Your task to perform on an android device: Open the map Image 0: 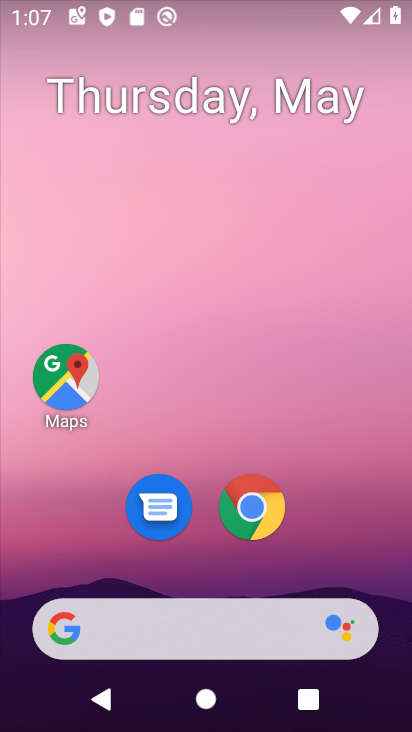
Step 0: drag from (194, 619) to (274, 0)
Your task to perform on an android device: Open the map Image 1: 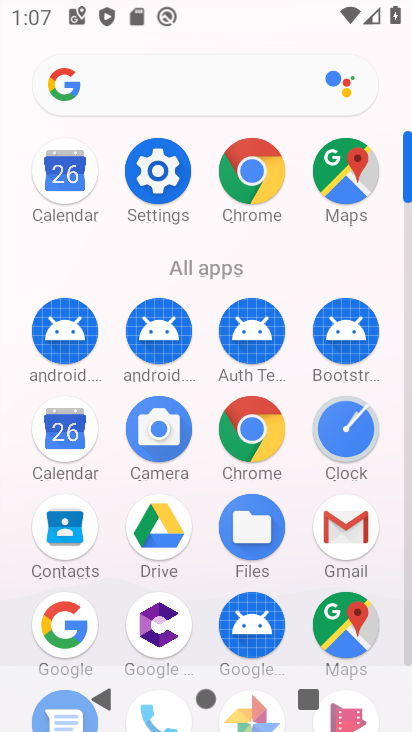
Step 1: click (351, 610)
Your task to perform on an android device: Open the map Image 2: 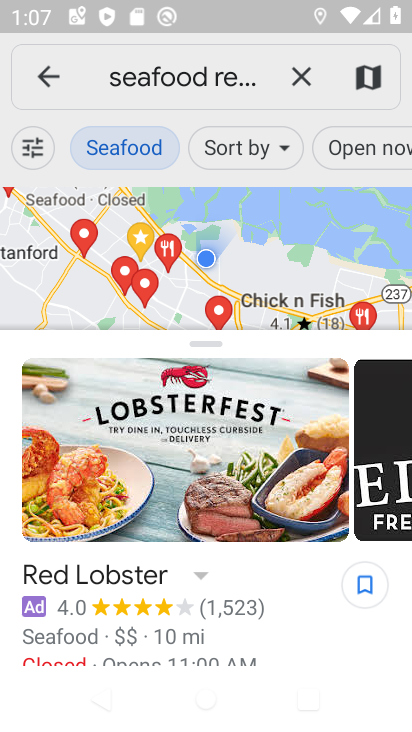
Step 2: task complete